Your task to perform on an android device: Go to Google maps Image 0: 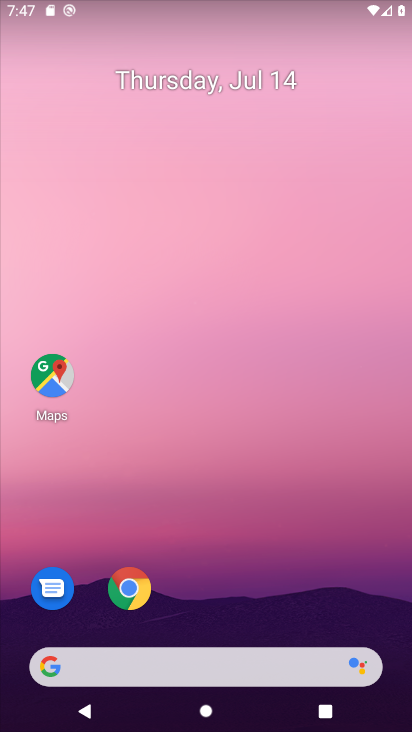
Step 0: drag from (229, 587) to (157, 47)
Your task to perform on an android device: Go to Google maps Image 1: 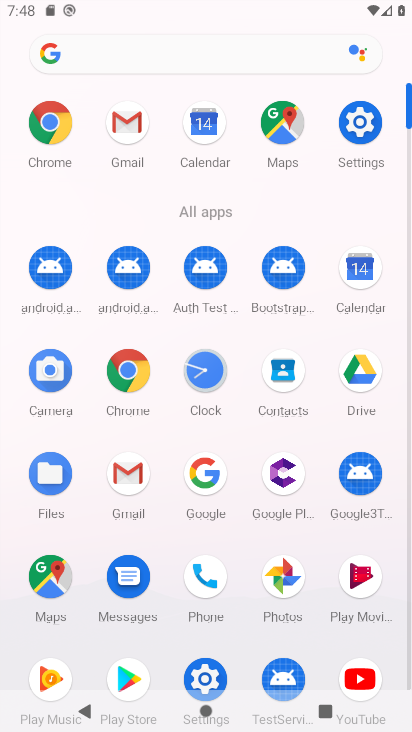
Step 1: click (59, 591)
Your task to perform on an android device: Go to Google maps Image 2: 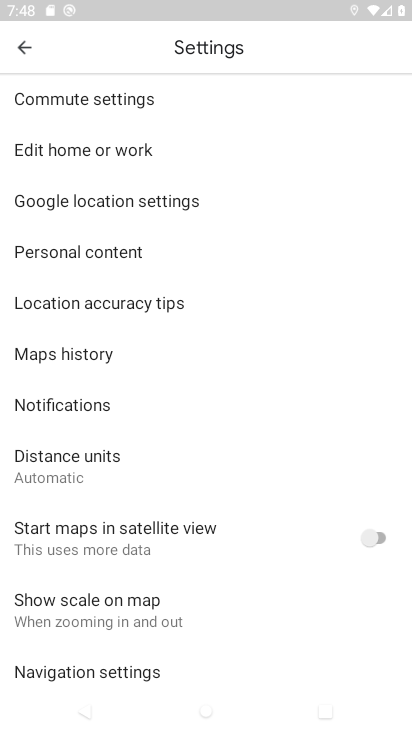
Step 2: click (26, 40)
Your task to perform on an android device: Go to Google maps Image 3: 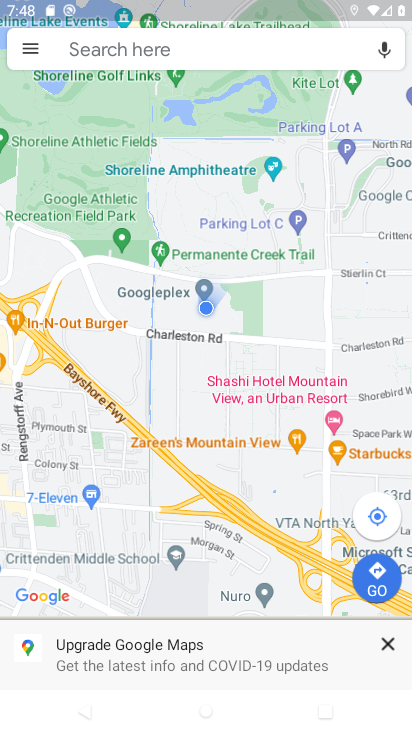
Step 3: task complete